Your task to perform on an android device: Open display settings Image 0: 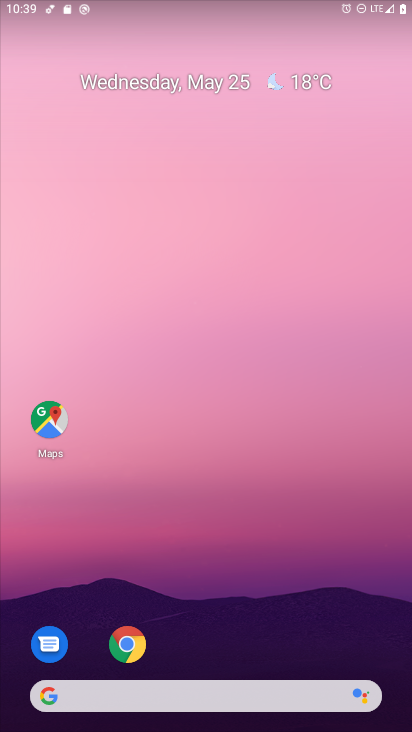
Step 0: press home button
Your task to perform on an android device: Open display settings Image 1: 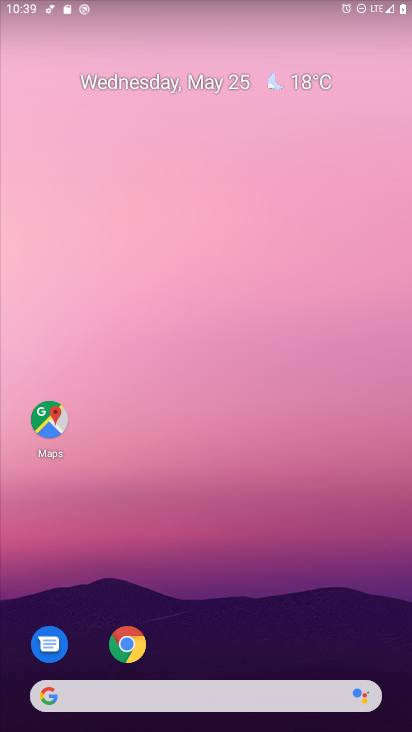
Step 1: drag from (196, 658) to (190, 40)
Your task to perform on an android device: Open display settings Image 2: 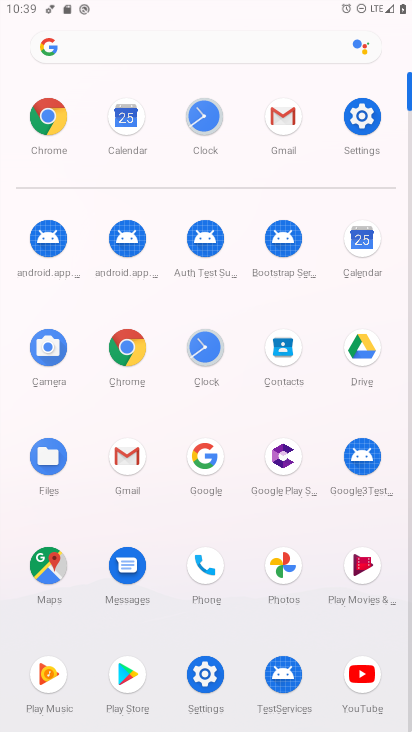
Step 2: click (358, 110)
Your task to perform on an android device: Open display settings Image 3: 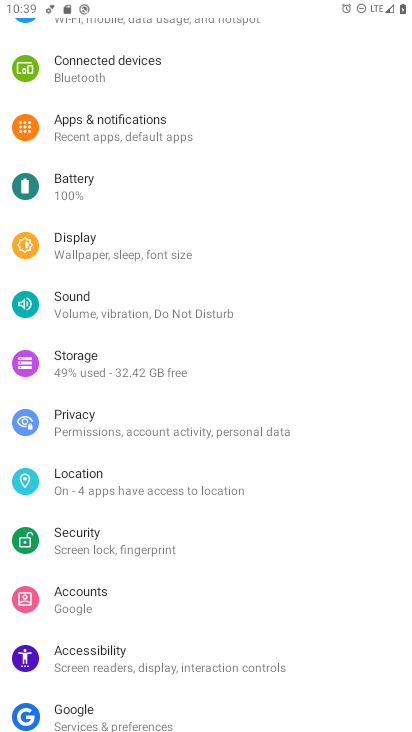
Step 3: click (108, 241)
Your task to perform on an android device: Open display settings Image 4: 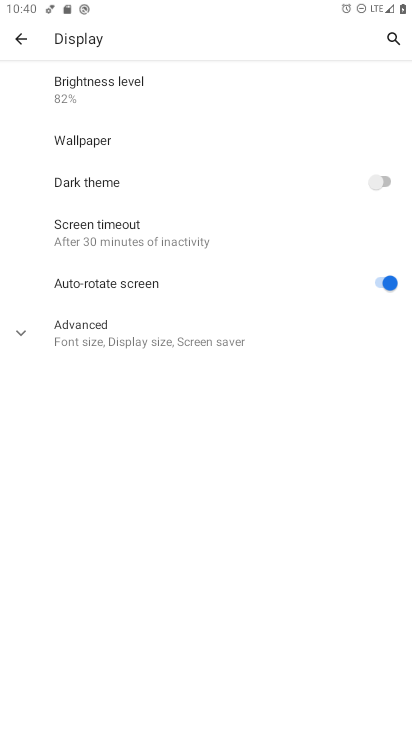
Step 4: click (18, 329)
Your task to perform on an android device: Open display settings Image 5: 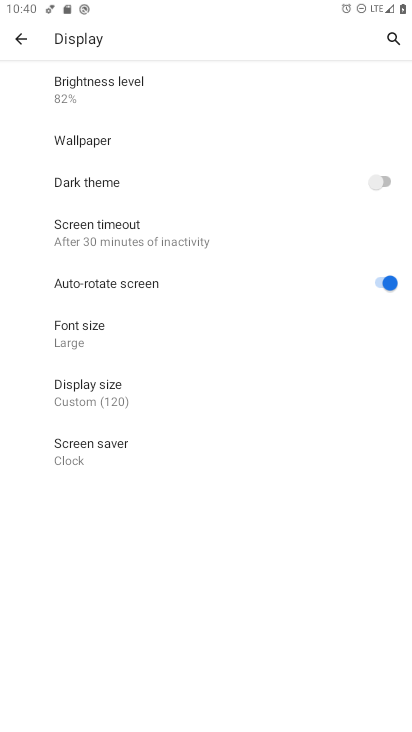
Step 5: task complete